Your task to perform on an android device: empty trash in google photos Image 0: 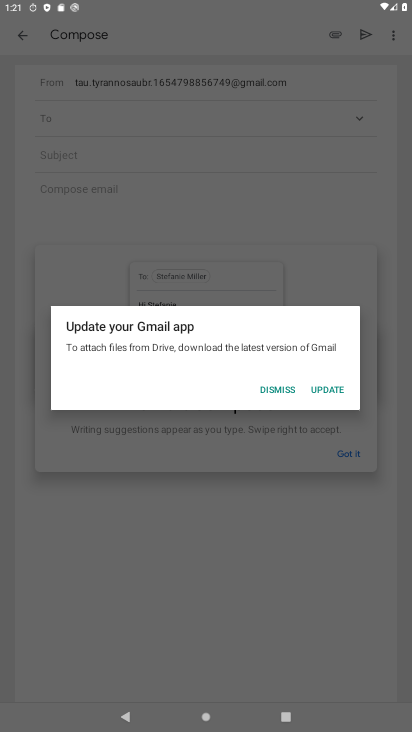
Step 0: press home button
Your task to perform on an android device: empty trash in google photos Image 1: 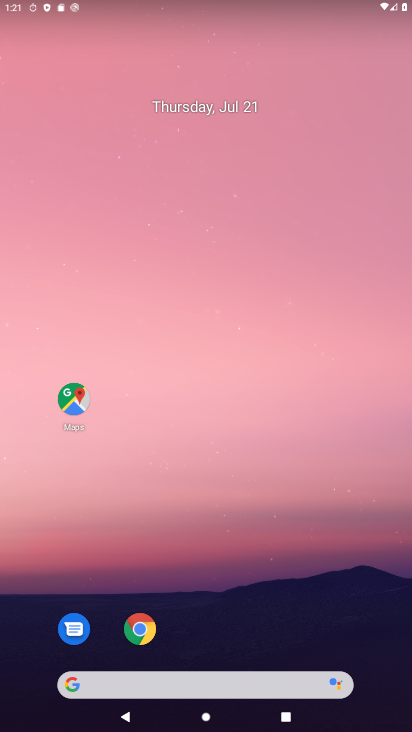
Step 1: drag from (50, 650) to (227, 33)
Your task to perform on an android device: empty trash in google photos Image 2: 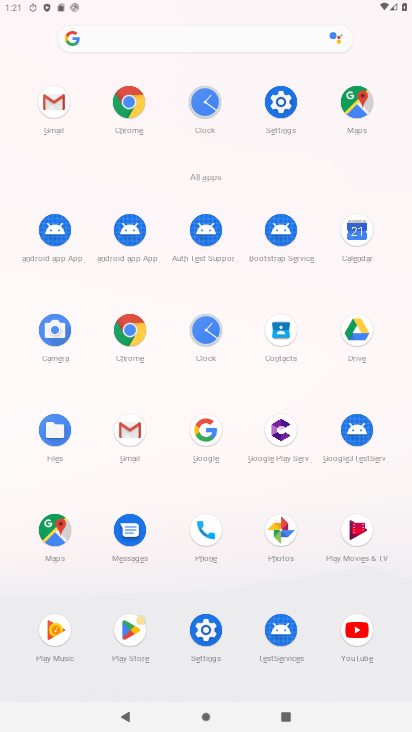
Step 2: click (128, 429)
Your task to perform on an android device: empty trash in google photos Image 3: 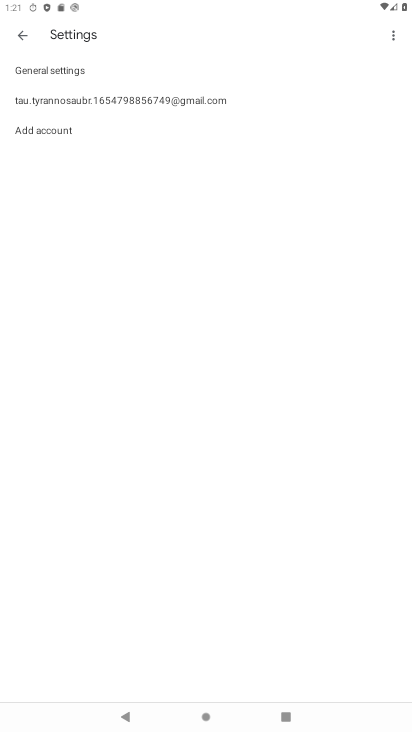
Step 3: click (24, 37)
Your task to perform on an android device: empty trash in google photos Image 4: 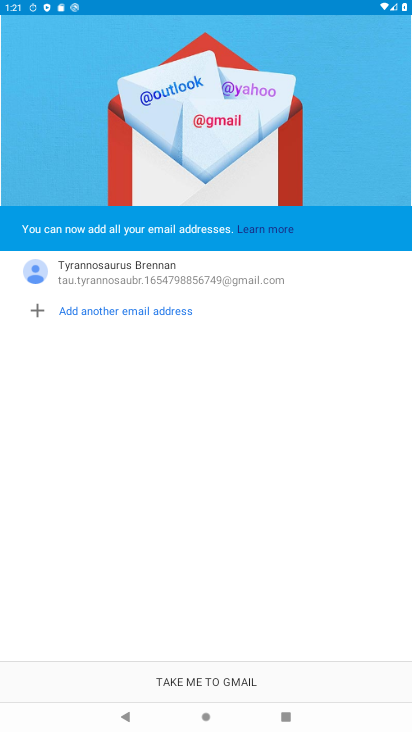
Step 4: click (187, 681)
Your task to perform on an android device: empty trash in google photos Image 5: 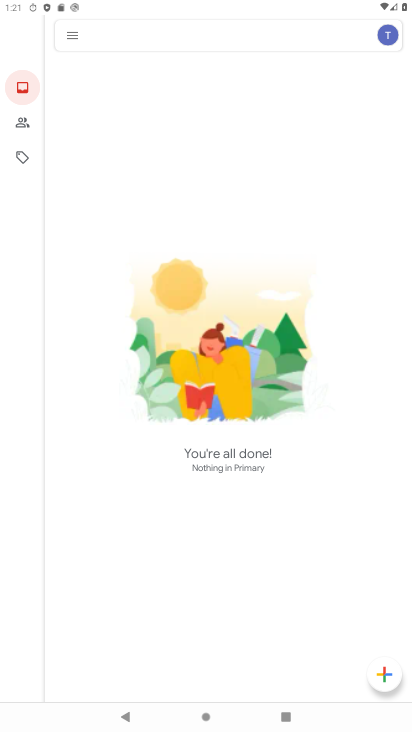
Step 5: click (67, 30)
Your task to perform on an android device: empty trash in google photos Image 6: 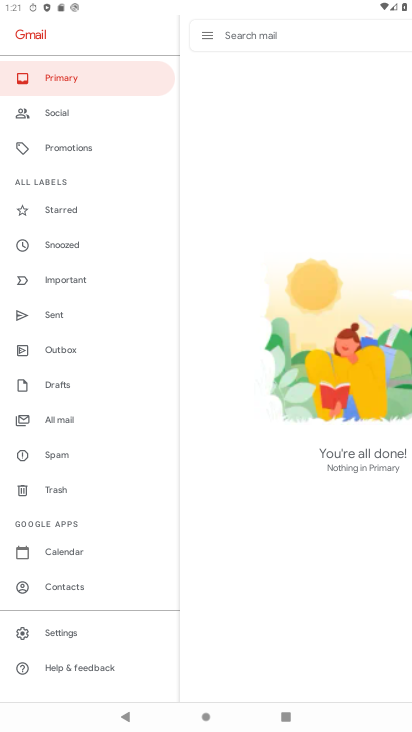
Step 6: click (75, 492)
Your task to perform on an android device: empty trash in google photos Image 7: 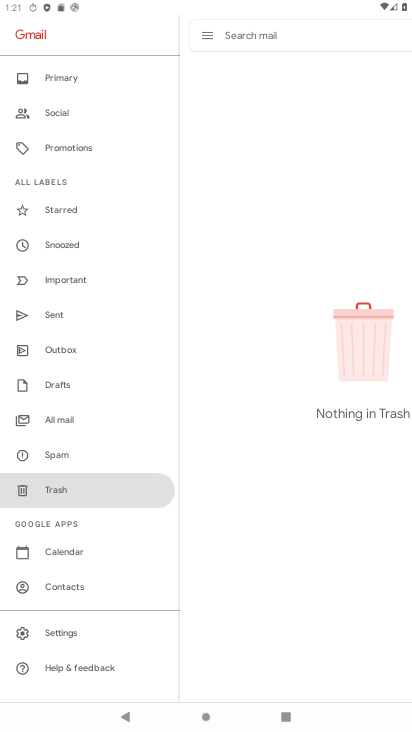
Step 7: task complete